Your task to perform on an android device: Search for sushi restaurants on Maps Image 0: 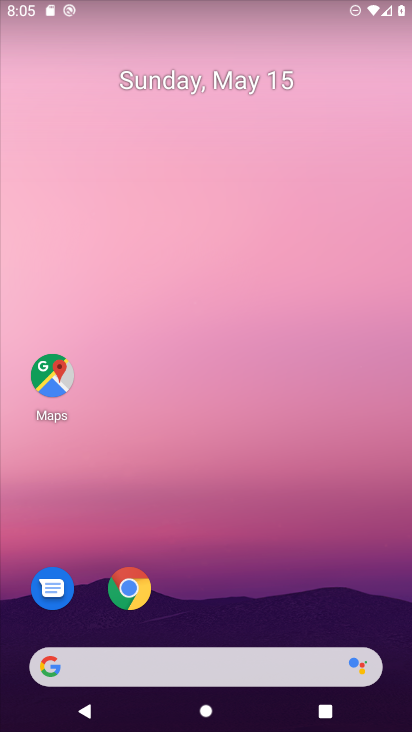
Step 0: click (47, 382)
Your task to perform on an android device: Search for sushi restaurants on Maps Image 1: 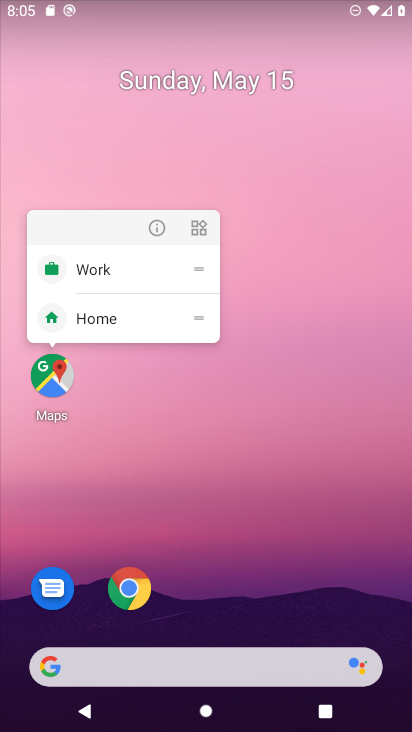
Step 1: click (38, 365)
Your task to perform on an android device: Search for sushi restaurants on Maps Image 2: 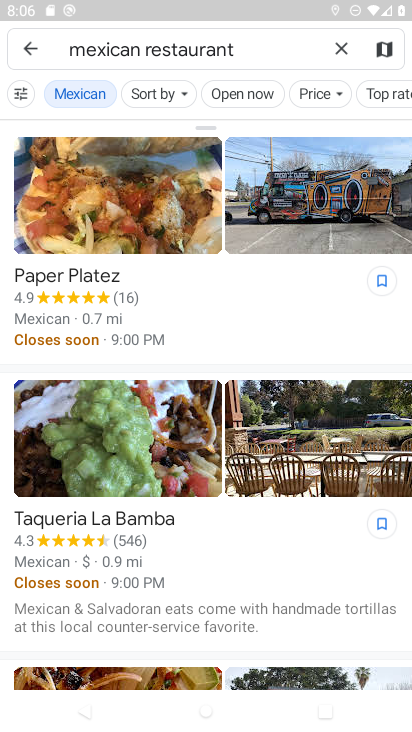
Step 2: click (347, 46)
Your task to perform on an android device: Search for sushi restaurants on Maps Image 3: 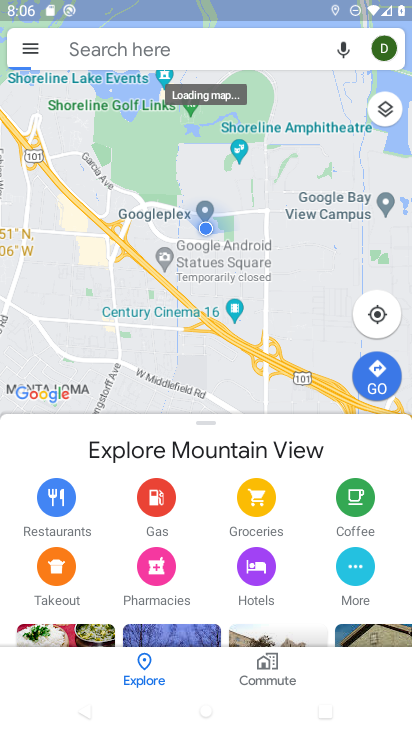
Step 3: click (133, 49)
Your task to perform on an android device: Search for sushi restaurants on Maps Image 4: 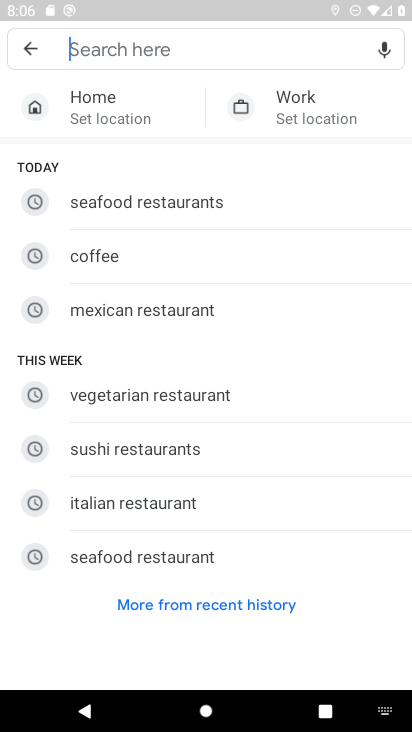
Step 4: type "sushi"
Your task to perform on an android device: Search for sushi restaurants on Maps Image 5: 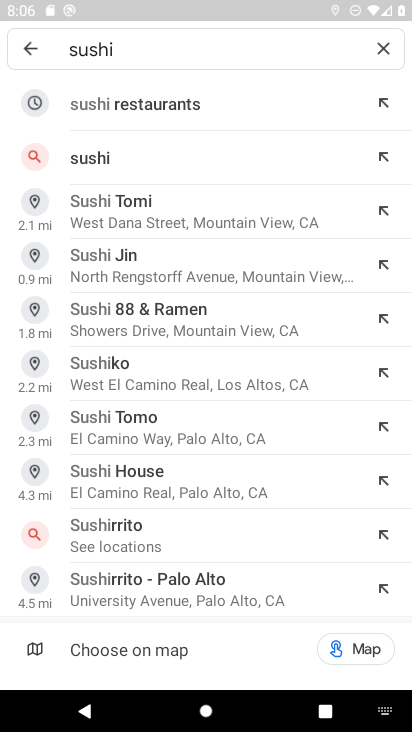
Step 5: click (158, 101)
Your task to perform on an android device: Search for sushi restaurants on Maps Image 6: 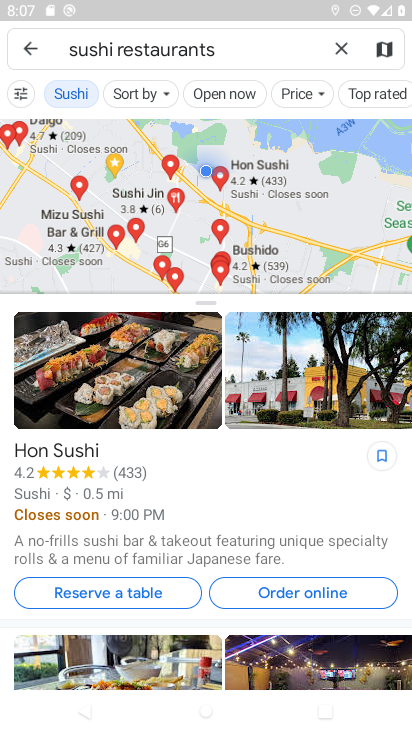
Step 6: task complete